Your task to perform on an android device: Search for logitech g502 on target, select the first entry, and add it to the cart. Image 0: 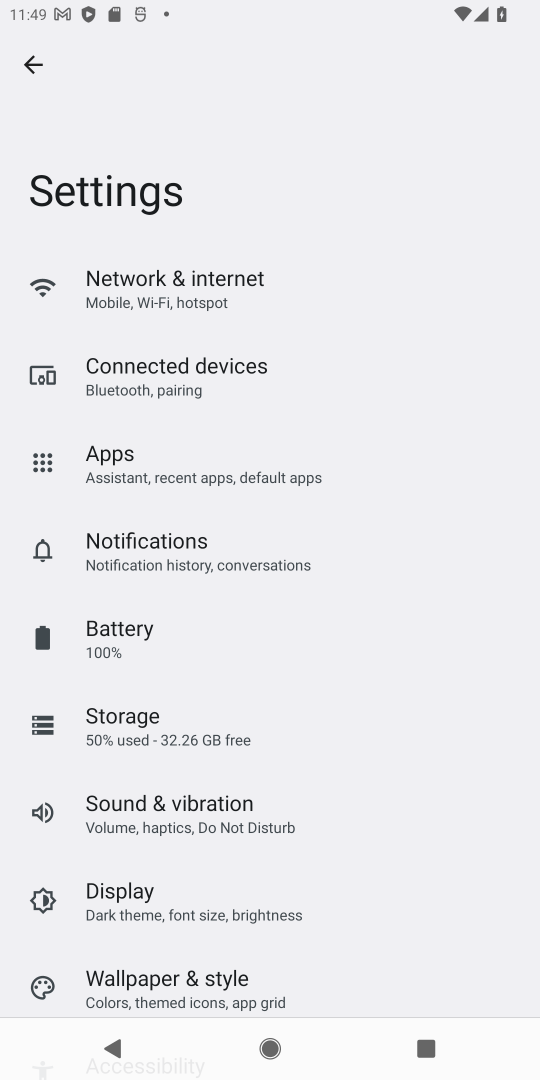
Step 0: task complete